Your task to perform on an android device: Add macbook air to the cart on costco.com Image 0: 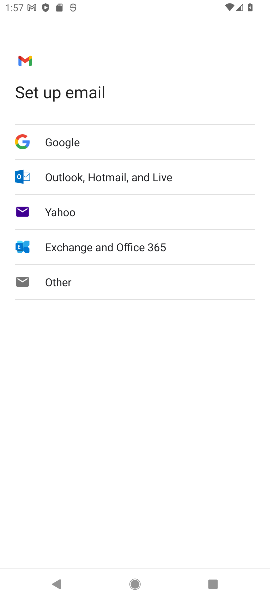
Step 0: press home button
Your task to perform on an android device: Add macbook air to the cart on costco.com Image 1: 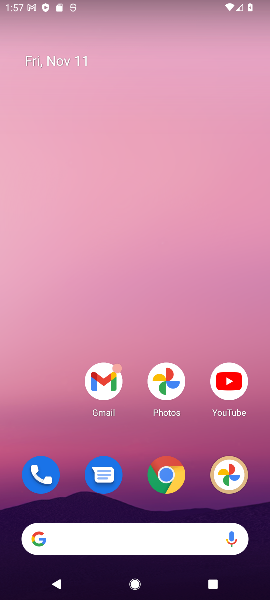
Step 1: drag from (135, 444) to (187, 44)
Your task to perform on an android device: Add macbook air to the cart on costco.com Image 2: 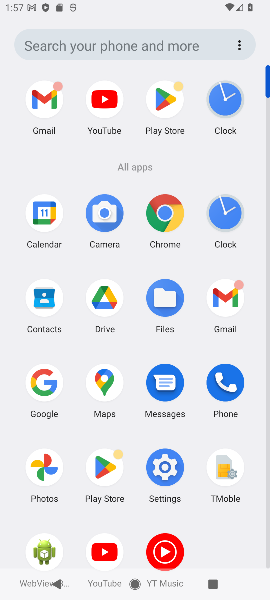
Step 2: click (165, 216)
Your task to perform on an android device: Add macbook air to the cart on costco.com Image 3: 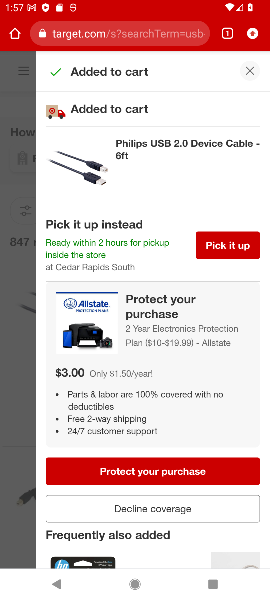
Step 3: click (111, 36)
Your task to perform on an android device: Add macbook air to the cart on costco.com Image 4: 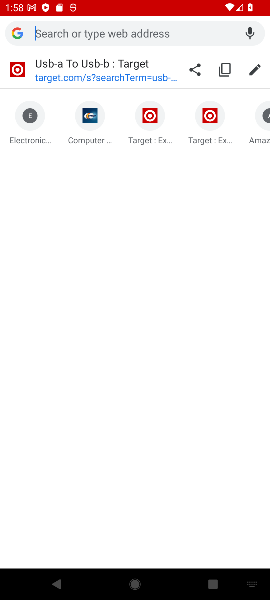
Step 4: click (83, 34)
Your task to perform on an android device: Add macbook air to the cart on costco.com Image 5: 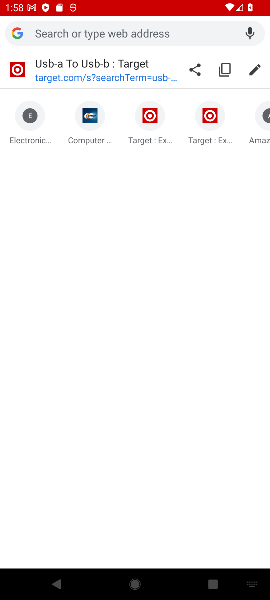
Step 5: type "costco.com"
Your task to perform on an android device: Add macbook air to the cart on costco.com Image 6: 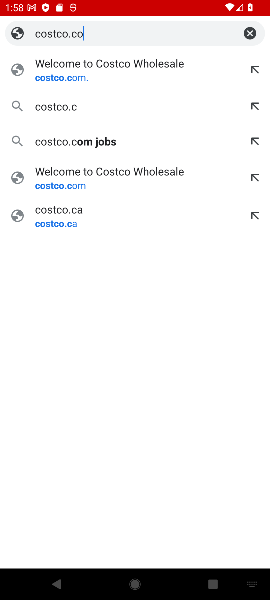
Step 6: press enter
Your task to perform on an android device: Add macbook air to the cart on costco.com Image 7: 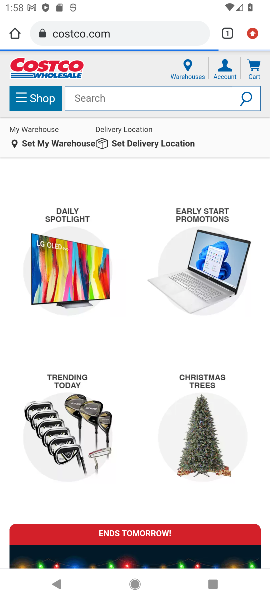
Step 7: click (88, 97)
Your task to perform on an android device: Add macbook air to the cart on costco.com Image 8: 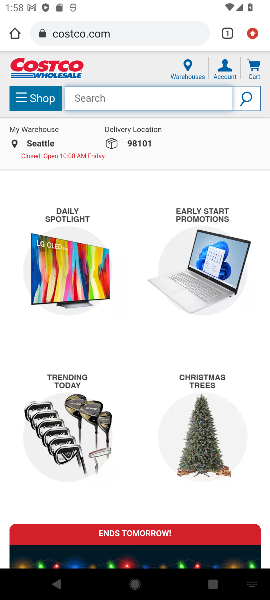
Step 8: click (117, 105)
Your task to perform on an android device: Add macbook air to the cart on costco.com Image 9: 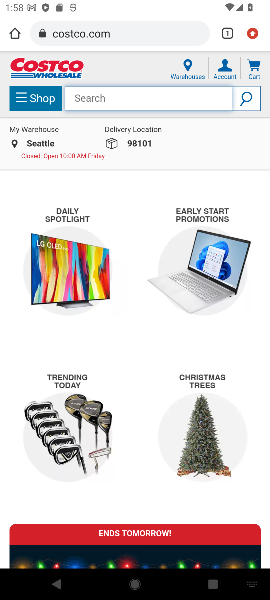
Step 9: click (141, 86)
Your task to perform on an android device: Add macbook air to the cart on costco.com Image 10: 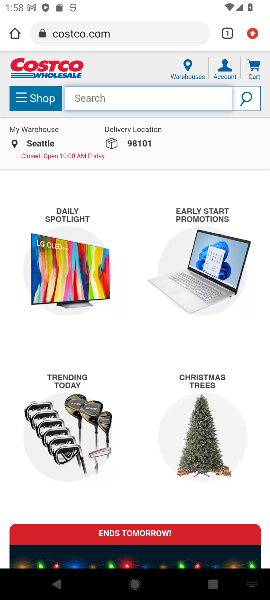
Step 10: click (149, 92)
Your task to perform on an android device: Add macbook air to the cart on costco.com Image 11: 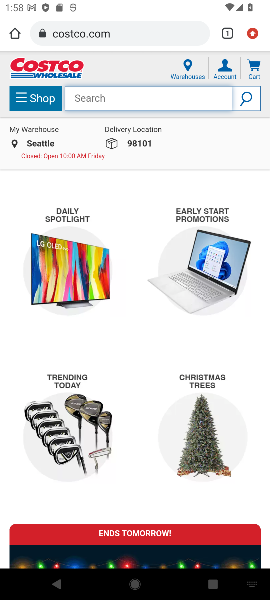
Step 11: click (150, 93)
Your task to perform on an android device: Add macbook air to the cart on costco.com Image 12: 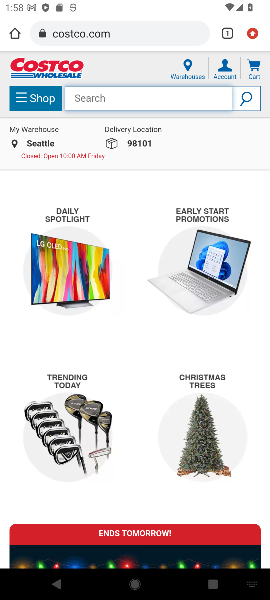
Step 12: click (130, 103)
Your task to perform on an android device: Add macbook air to the cart on costco.com Image 13: 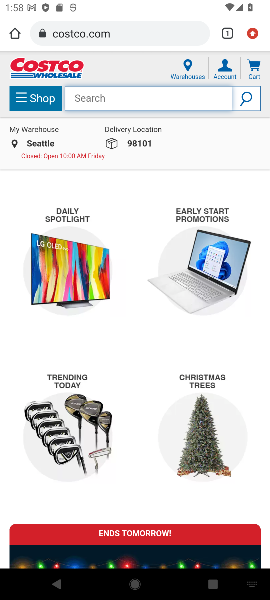
Step 13: click (248, 98)
Your task to perform on an android device: Add macbook air to the cart on costco.com Image 14: 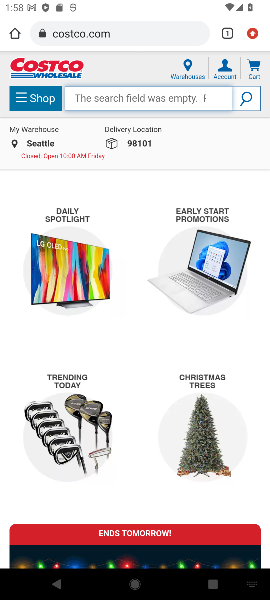
Step 14: click (85, 101)
Your task to perform on an android device: Add macbook air to the cart on costco.com Image 15: 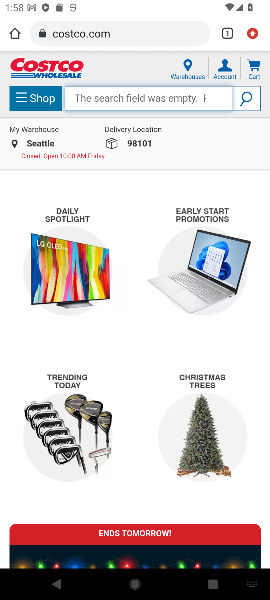
Step 15: type "macbook"
Your task to perform on an android device: Add macbook air to the cart on costco.com Image 16: 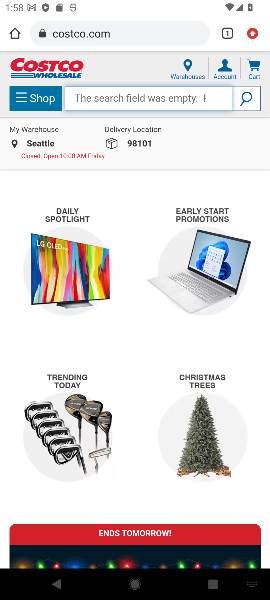
Step 16: press enter
Your task to perform on an android device: Add macbook air to the cart on costco.com Image 17: 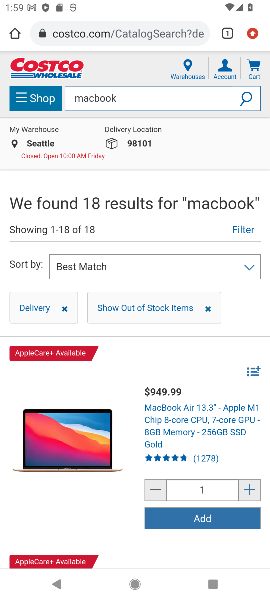
Step 17: click (200, 522)
Your task to perform on an android device: Add macbook air to the cart on costco.com Image 18: 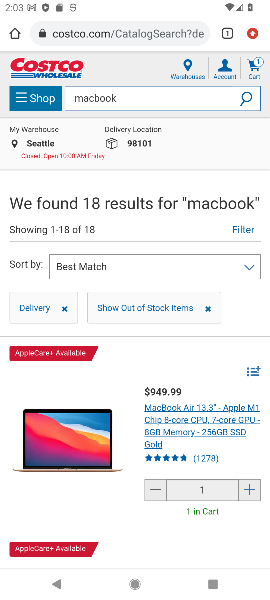
Step 18: task complete